Your task to perform on an android device: add a contact in the contacts app Image 0: 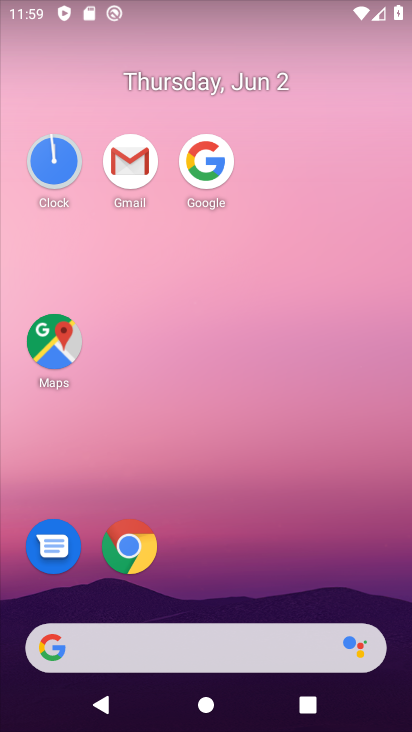
Step 0: drag from (303, 589) to (346, 102)
Your task to perform on an android device: add a contact in the contacts app Image 1: 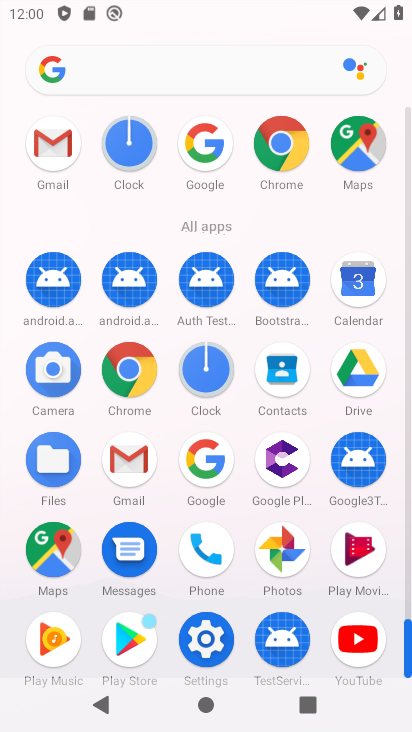
Step 1: click (270, 366)
Your task to perform on an android device: add a contact in the contacts app Image 2: 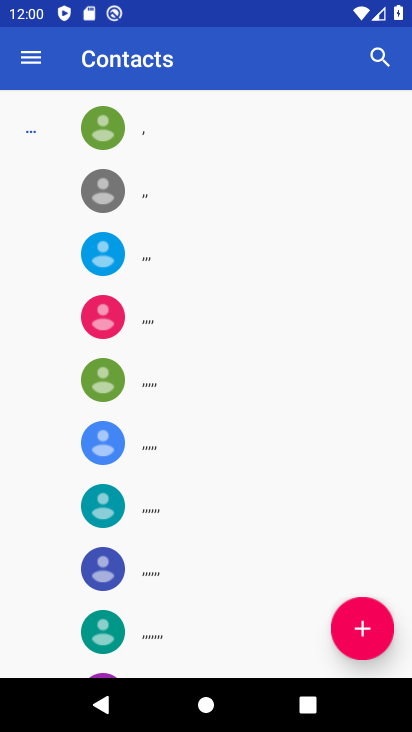
Step 2: click (359, 623)
Your task to perform on an android device: add a contact in the contacts app Image 3: 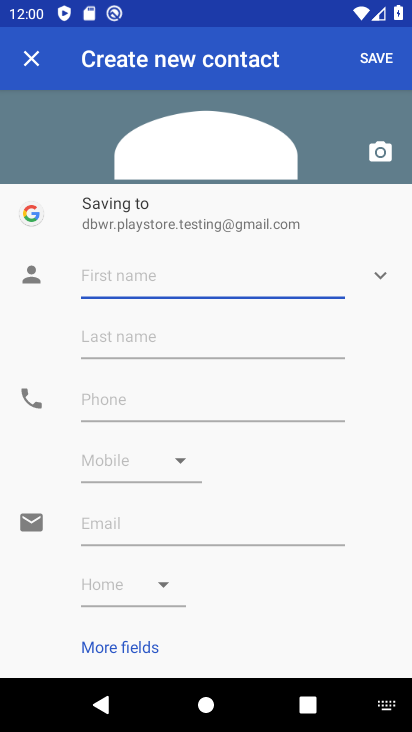
Step 3: type "ddd"
Your task to perform on an android device: add a contact in the contacts app Image 4: 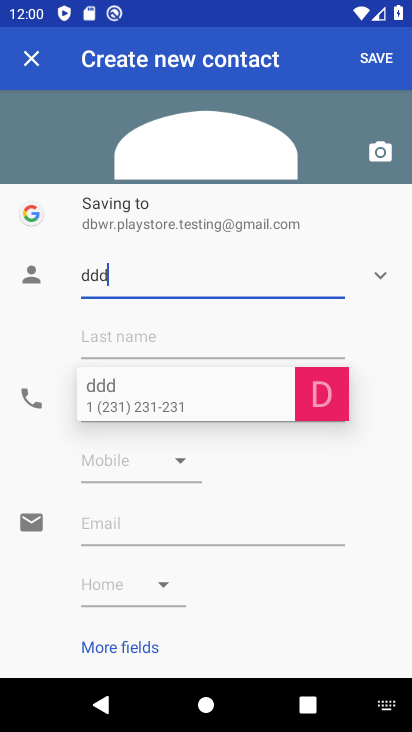
Step 4: click (195, 405)
Your task to perform on an android device: add a contact in the contacts app Image 5: 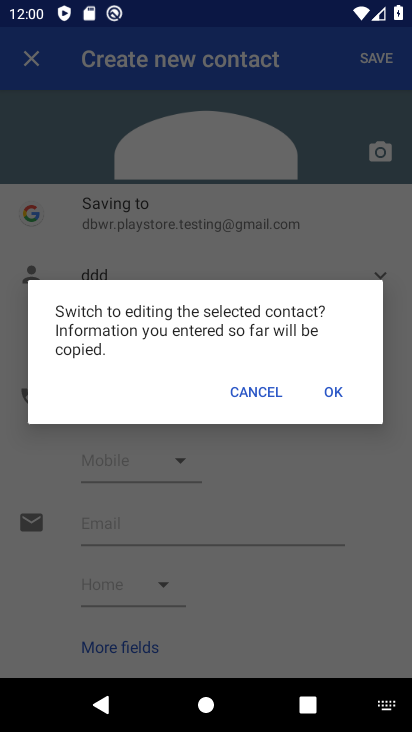
Step 5: click (249, 405)
Your task to perform on an android device: add a contact in the contacts app Image 6: 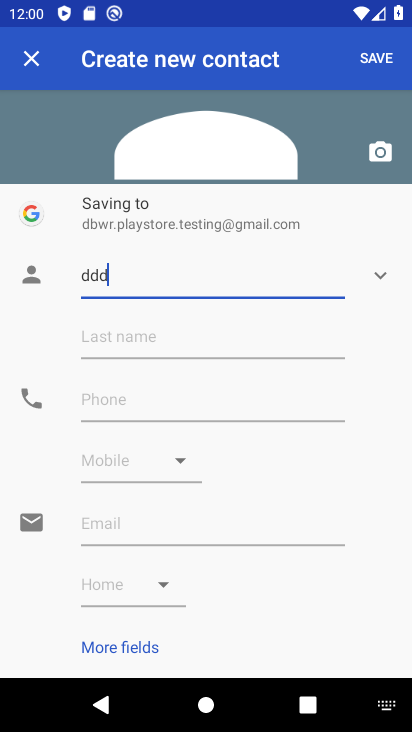
Step 6: click (195, 345)
Your task to perform on an android device: add a contact in the contacts app Image 7: 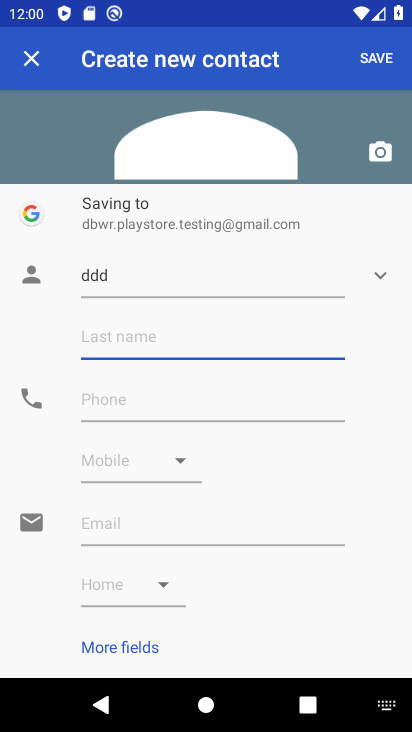
Step 7: type "ppp"
Your task to perform on an android device: add a contact in the contacts app Image 8: 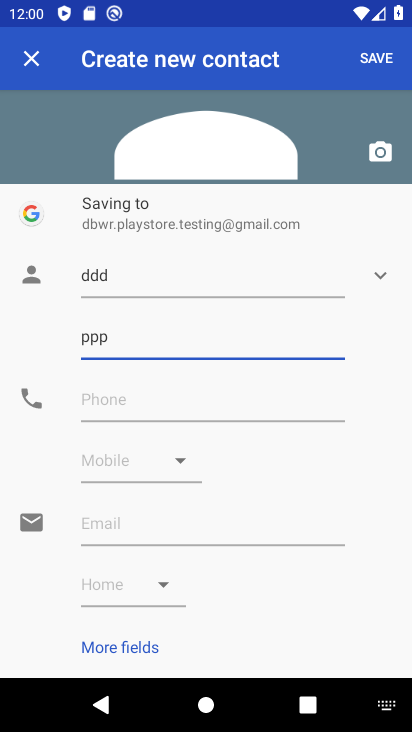
Step 8: click (198, 390)
Your task to perform on an android device: add a contact in the contacts app Image 9: 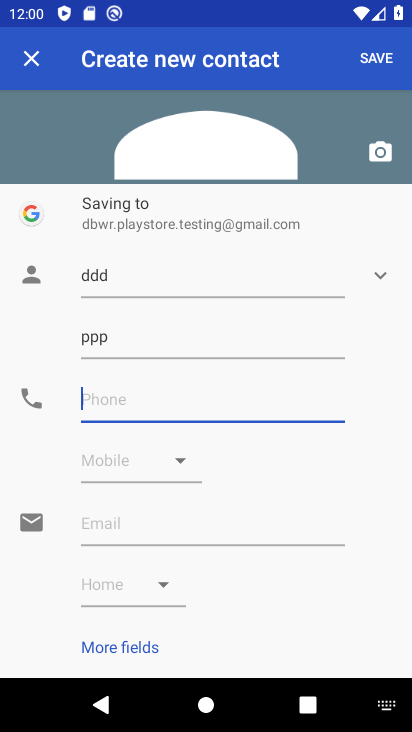
Step 9: type "0099887890"
Your task to perform on an android device: add a contact in the contacts app Image 10: 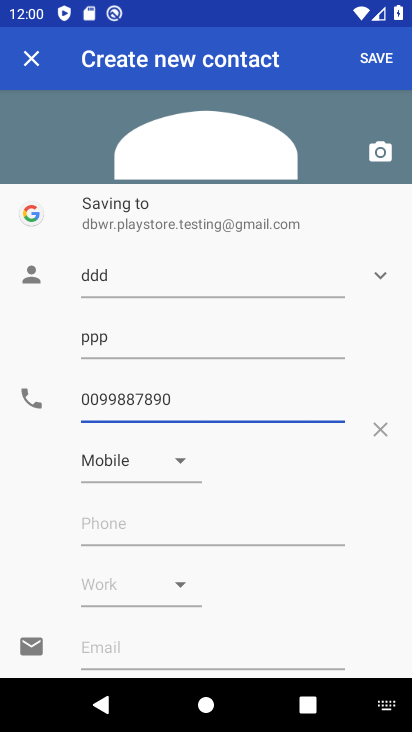
Step 10: click (361, 56)
Your task to perform on an android device: add a contact in the contacts app Image 11: 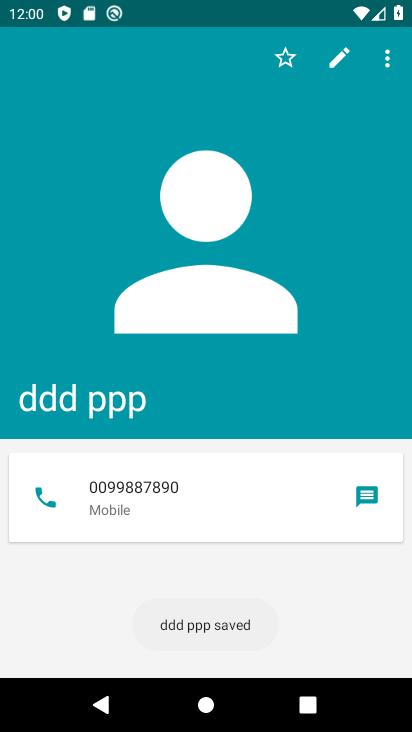
Step 11: task complete